Your task to perform on an android device: Open settings Image 0: 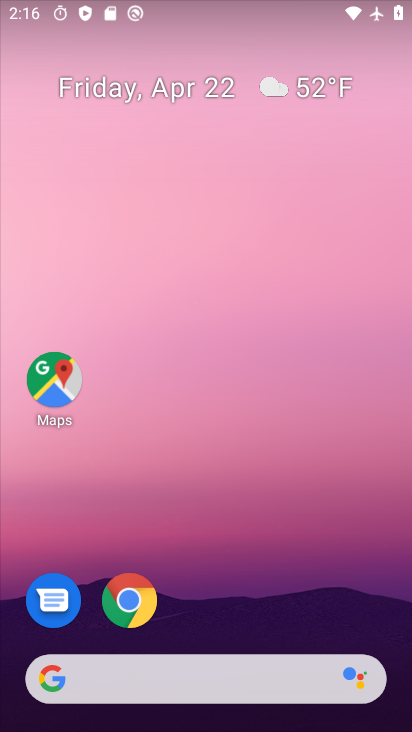
Step 0: drag from (205, 585) to (204, 240)
Your task to perform on an android device: Open settings Image 1: 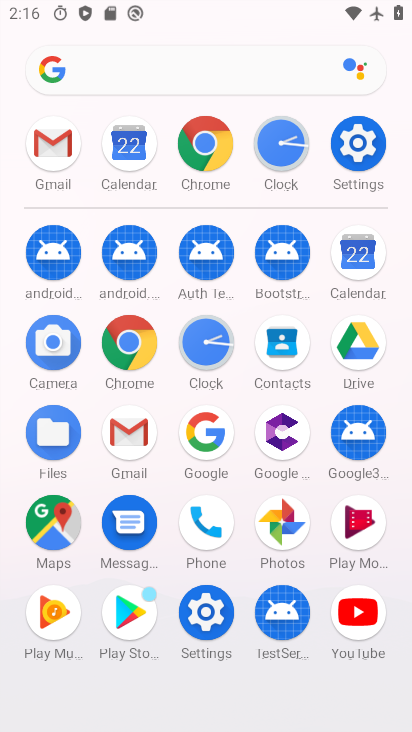
Step 1: click (364, 150)
Your task to perform on an android device: Open settings Image 2: 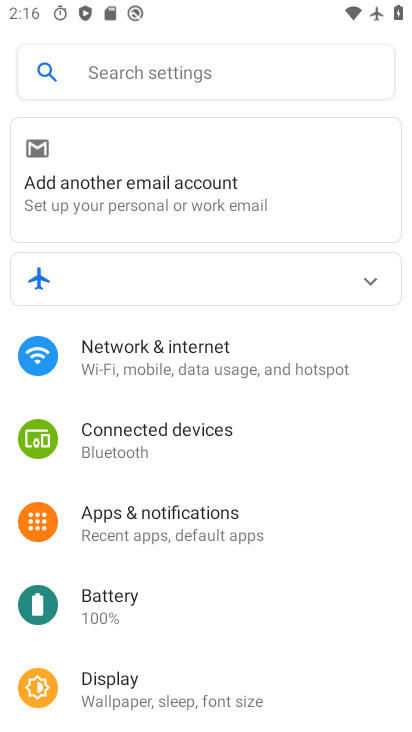
Step 2: task complete